Your task to perform on an android device: snooze an email in the gmail app Image 0: 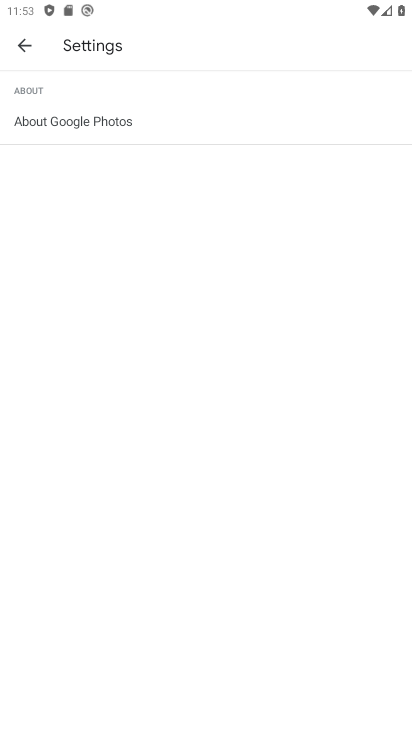
Step 0: press home button
Your task to perform on an android device: snooze an email in the gmail app Image 1: 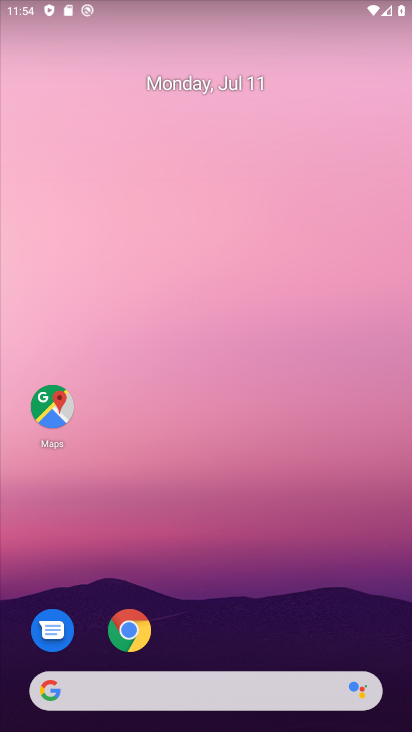
Step 1: drag from (201, 691) to (187, 107)
Your task to perform on an android device: snooze an email in the gmail app Image 2: 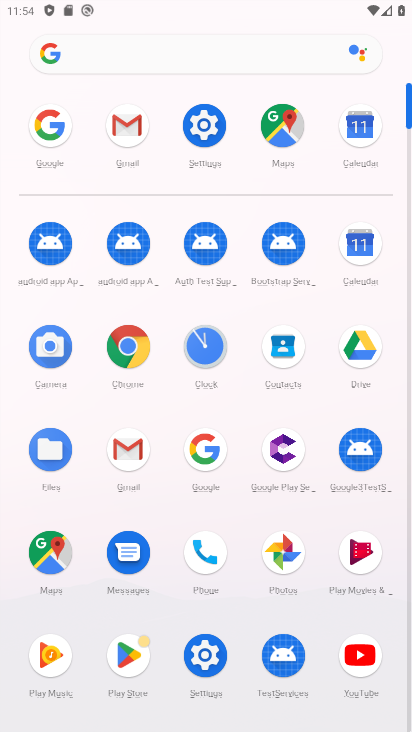
Step 2: click (127, 447)
Your task to perform on an android device: snooze an email in the gmail app Image 3: 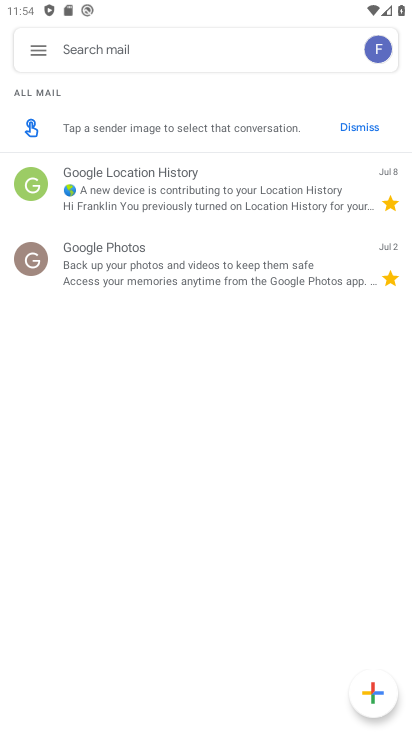
Step 3: click (195, 206)
Your task to perform on an android device: snooze an email in the gmail app Image 4: 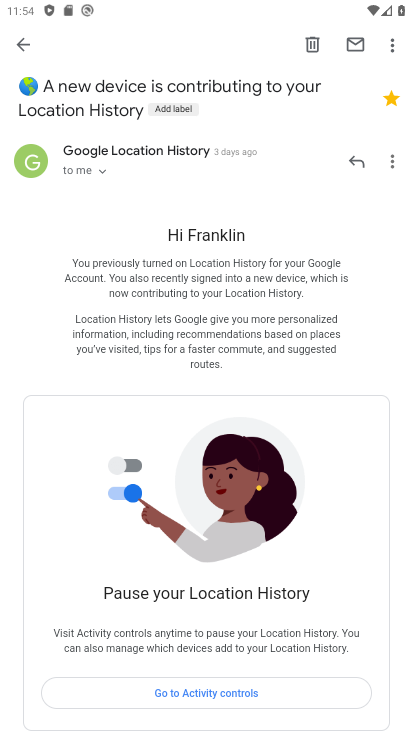
Step 4: click (388, 46)
Your task to perform on an android device: snooze an email in the gmail app Image 5: 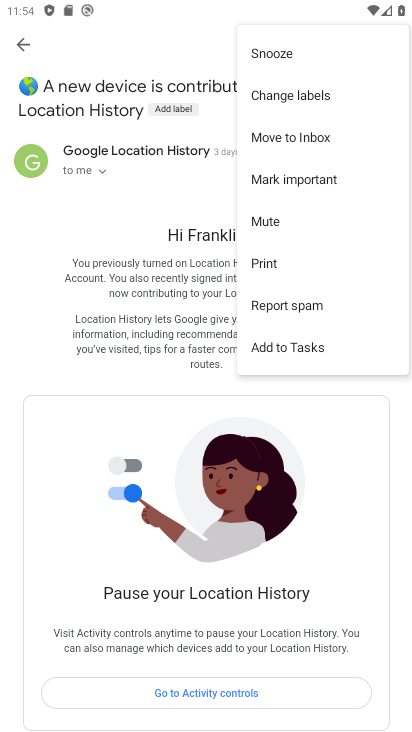
Step 5: click (268, 49)
Your task to perform on an android device: snooze an email in the gmail app Image 6: 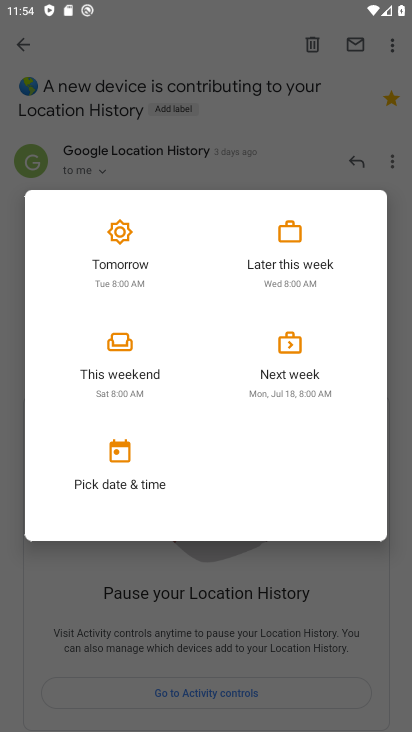
Step 6: click (295, 256)
Your task to perform on an android device: snooze an email in the gmail app Image 7: 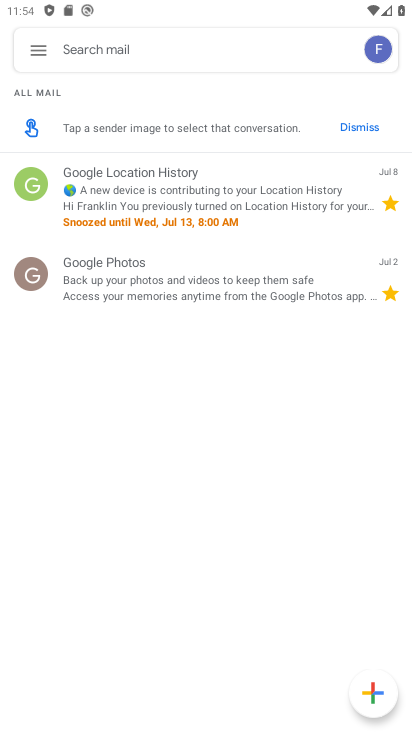
Step 7: task complete